Your task to perform on an android device: toggle show notifications on the lock screen Image 0: 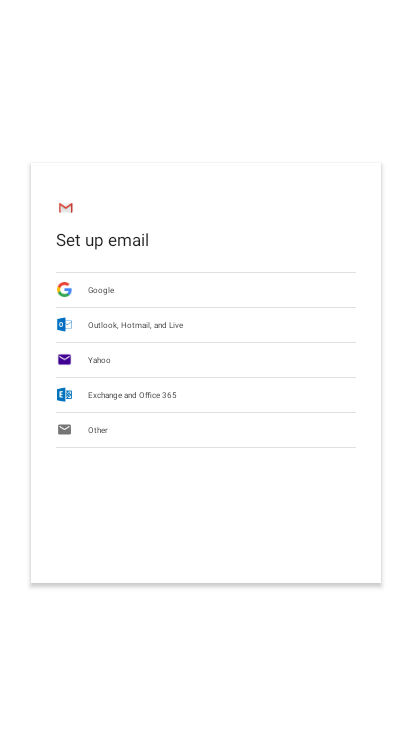
Step 0: press home button
Your task to perform on an android device: toggle show notifications on the lock screen Image 1: 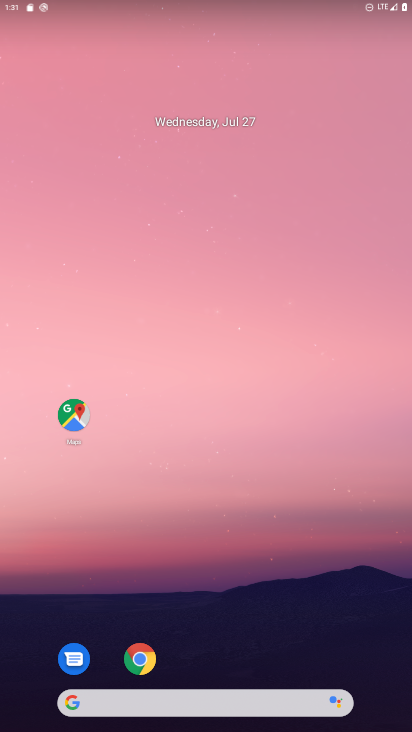
Step 1: drag from (243, 679) to (346, 202)
Your task to perform on an android device: toggle show notifications on the lock screen Image 2: 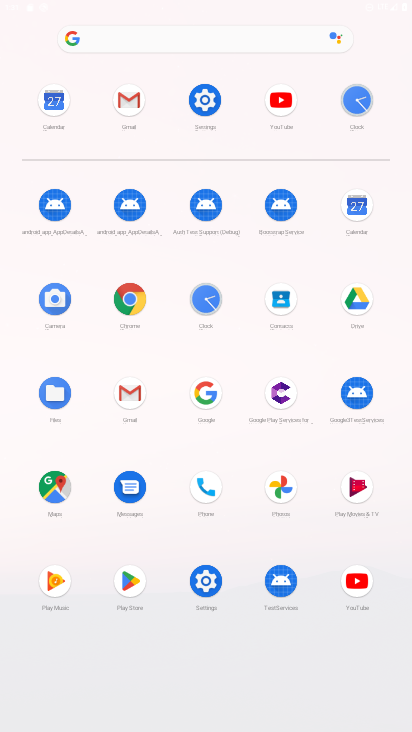
Step 2: click (218, 100)
Your task to perform on an android device: toggle show notifications on the lock screen Image 3: 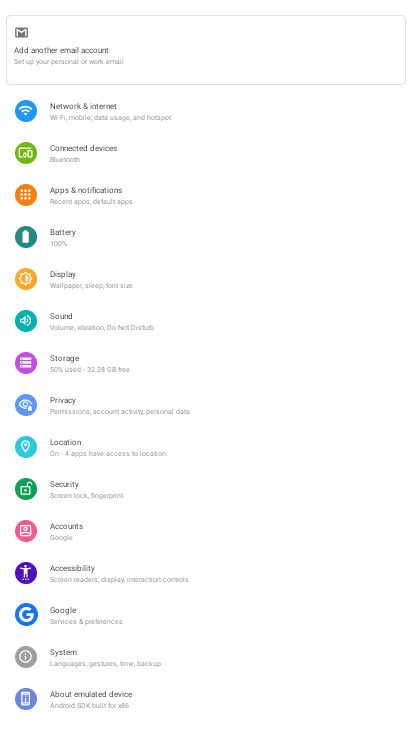
Step 3: click (99, 198)
Your task to perform on an android device: toggle show notifications on the lock screen Image 4: 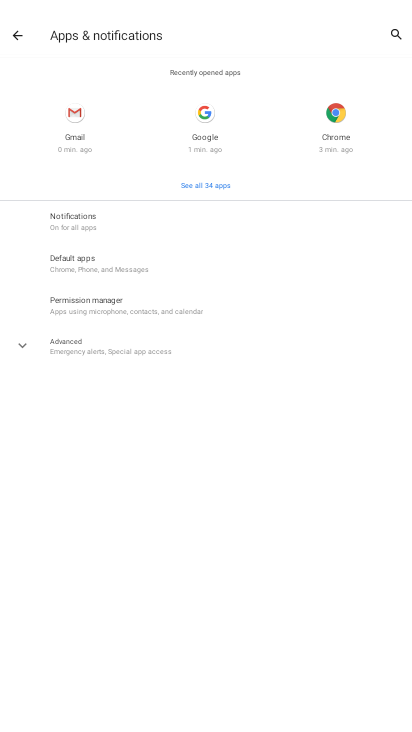
Step 4: click (79, 350)
Your task to perform on an android device: toggle show notifications on the lock screen Image 5: 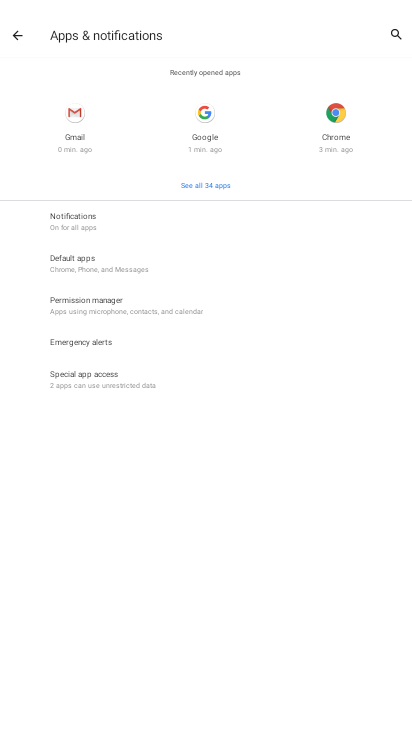
Step 5: click (87, 219)
Your task to perform on an android device: toggle show notifications on the lock screen Image 6: 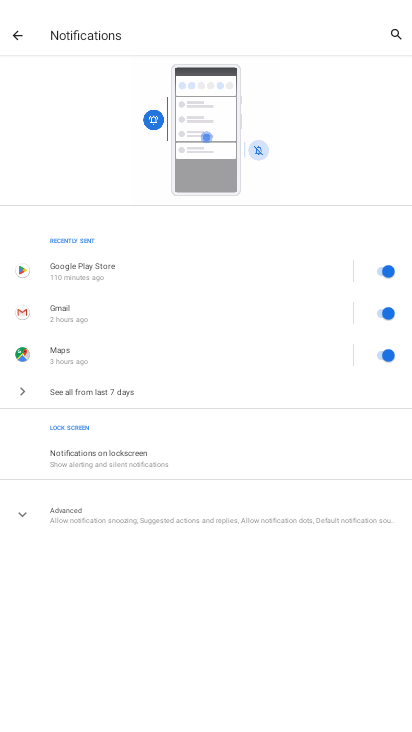
Step 6: click (104, 452)
Your task to perform on an android device: toggle show notifications on the lock screen Image 7: 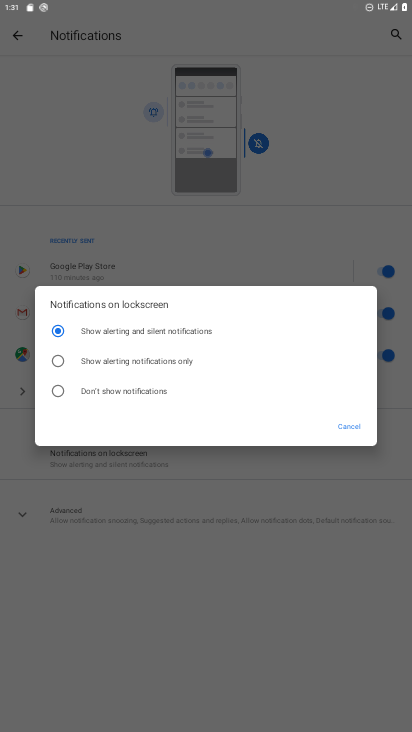
Step 7: click (125, 329)
Your task to perform on an android device: toggle show notifications on the lock screen Image 8: 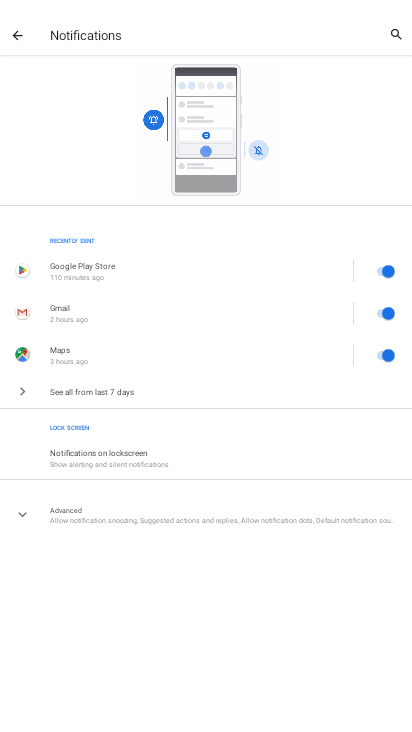
Step 8: drag from (152, 643) to (151, 584)
Your task to perform on an android device: toggle show notifications on the lock screen Image 9: 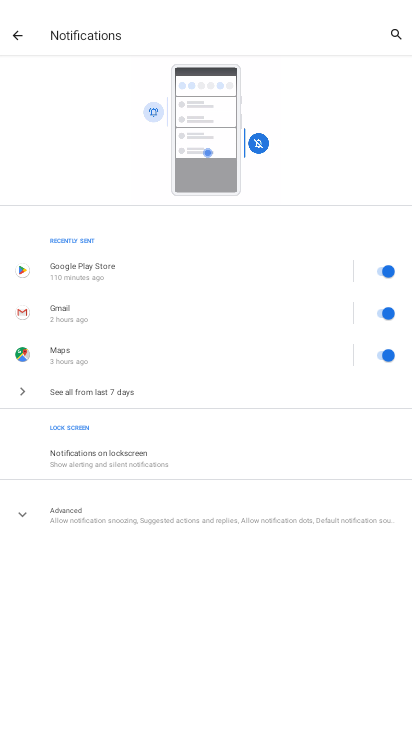
Step 9: click (272, 643)
Your task to perform on an android device: toggle show notifications on the lock screen Image 10: 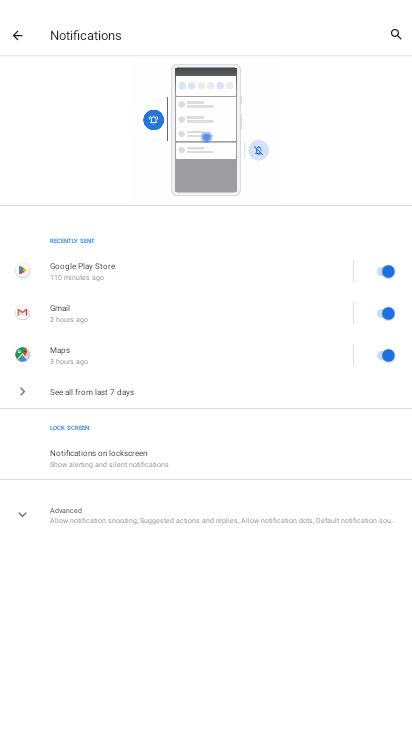
Step 10: click (216, 459)
Your task to perform on an android device: toggle show notifications on the lock screen Image 11: 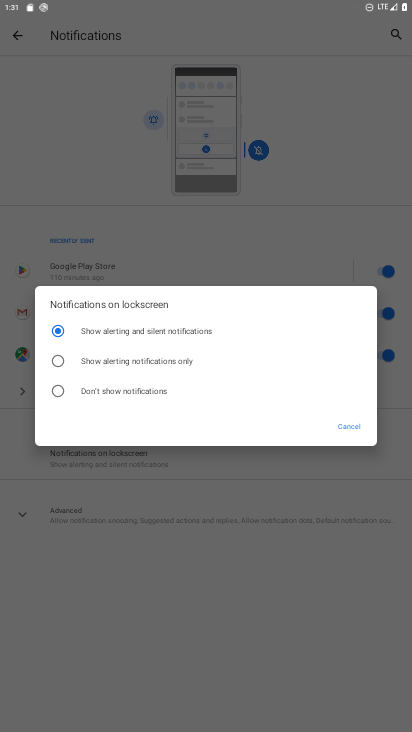
Step 11: click (136, 327)
Your task to perform on an android device: toggle show notifications on the lock screen Image 12: 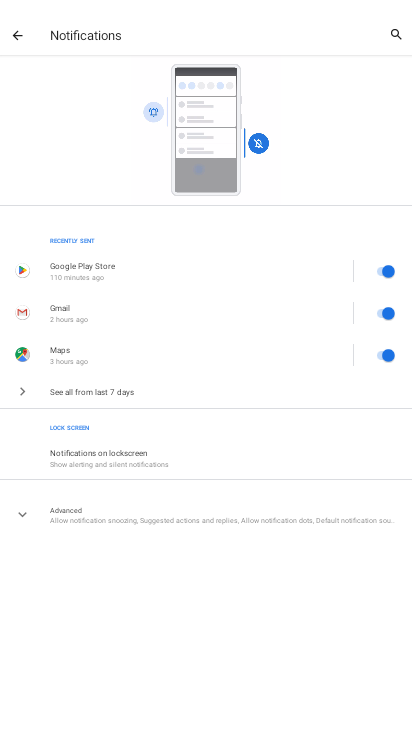
Step 12: task complete